Your task to perform on an android device: turn on sleep mode Image 0: 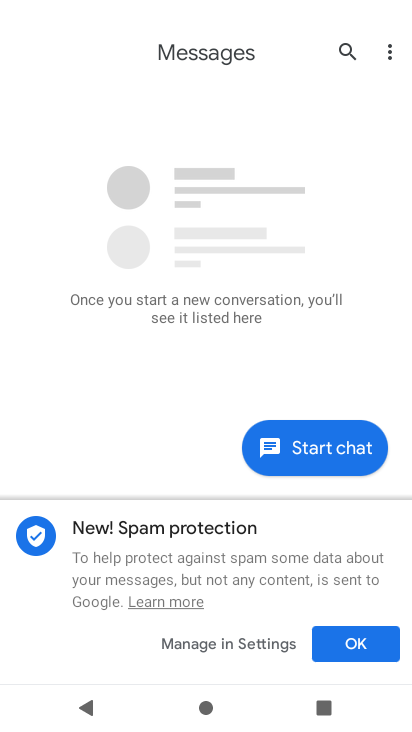
Step 0: press home button
Your task to perform on an android device: turn on sleep mode Image 1: 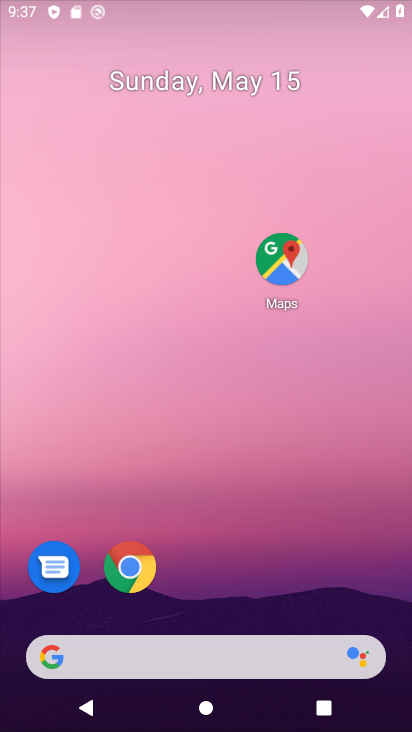
Step 1: drag from (229, 401) to (247, 103)
Your task to perform on an android device: turn on sleep mode Image 2: 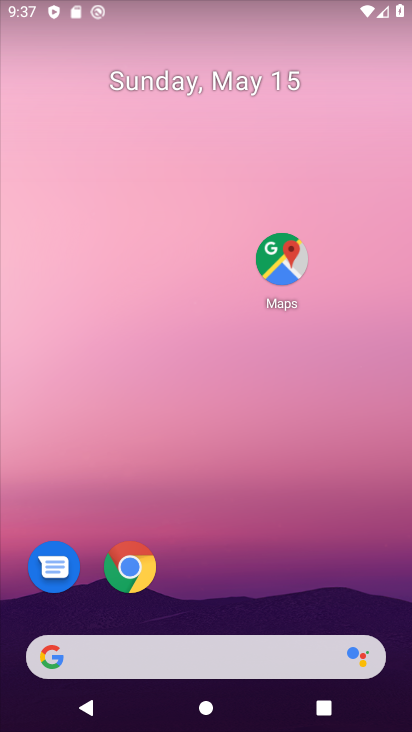
Step 2: drag from (228, 496) to (203, 22)
Your task to perform on an android device: turn on sleep mode Image 3: 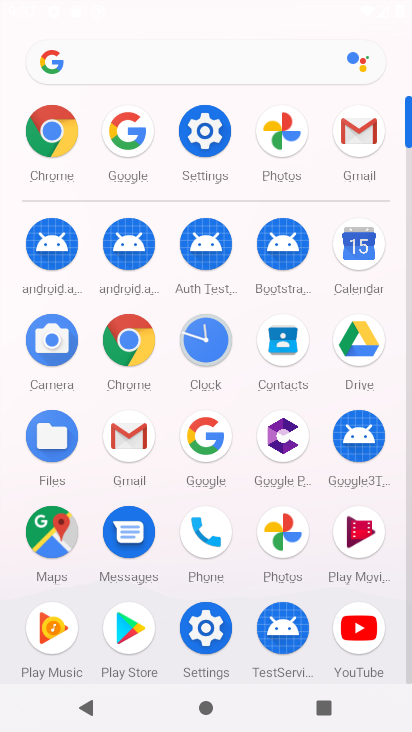
Step 3: click (209, 130)
Your task to perform on an android device: turn on sleep mode Image 4: 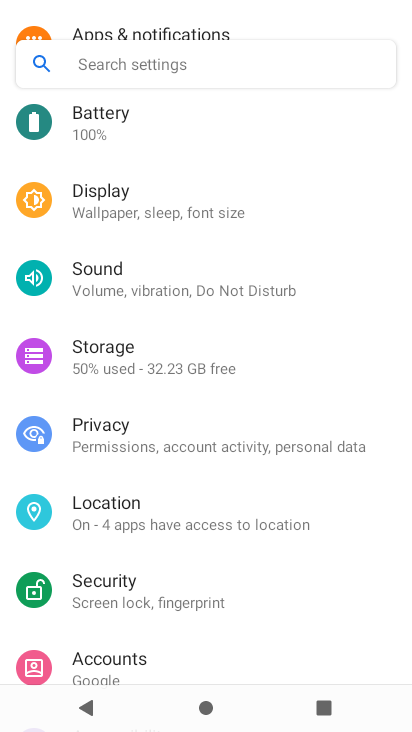
Step 4: click (160, 214)
Your task to perform on an android device: turn on sleep mode Image 5: 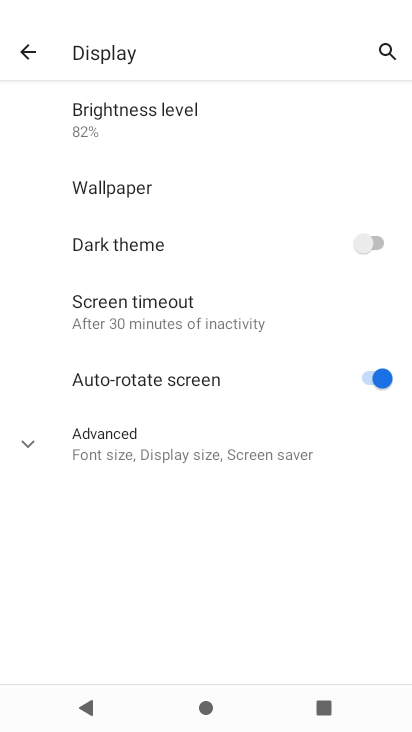
Step 5: click (130, 309)
Your task to perform on an android device: turn on sleep mode Image 6: 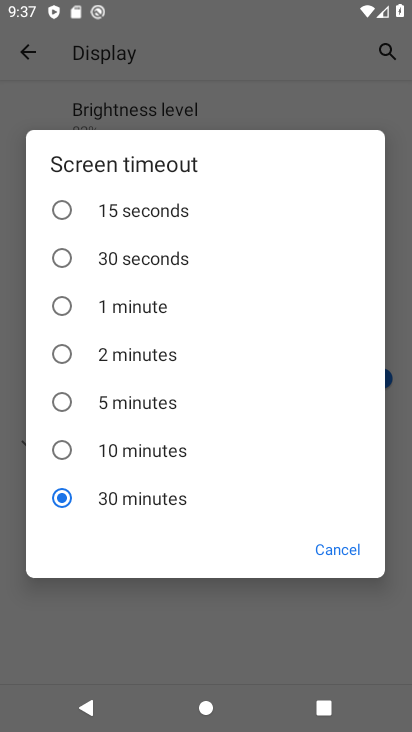
Step 6: task complete